Your task to perform on an android device: search for starred emails in the gmail app Image 0: 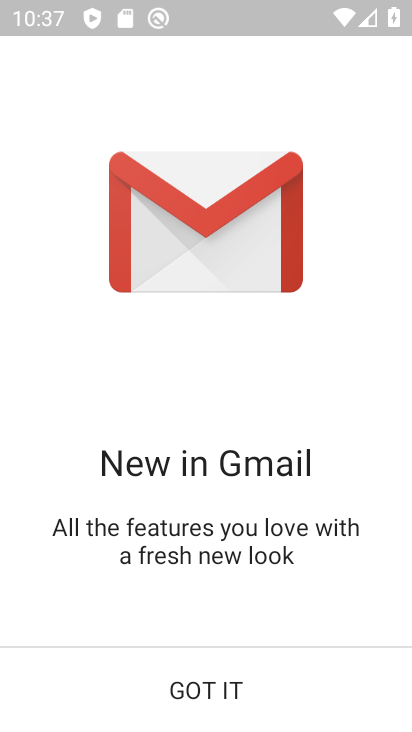
Step 0: click (212, 709)
Your task to perform on an android device: search for starred emails in the gmail app Image 1: 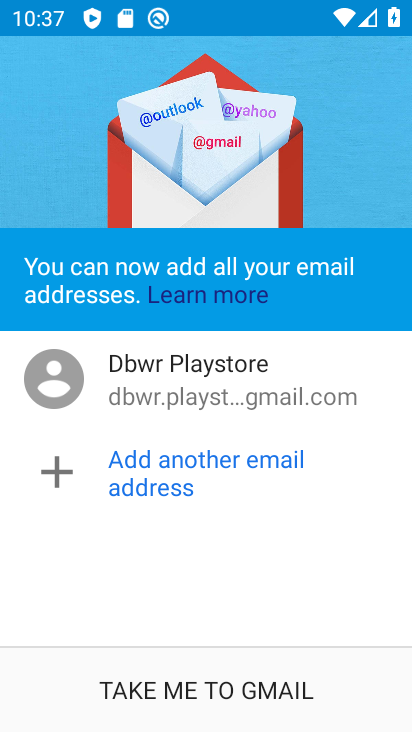
Step 1: click (228, 677)
Your task to perform on an android device: search for starred emails in the gmail app Image 2: 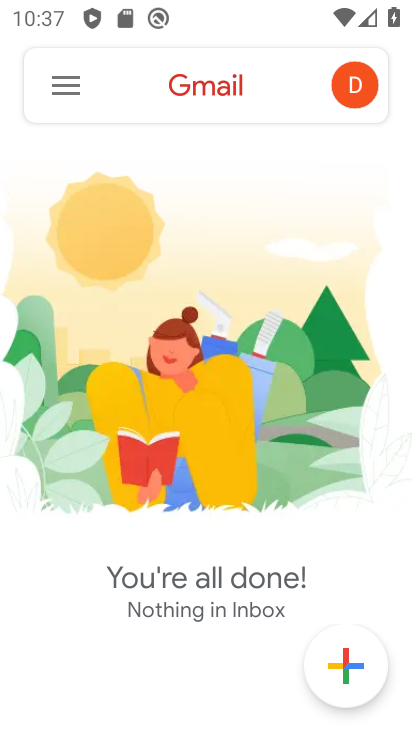
Step 2: click (61, 90)
Your task to perform on an android device: search for starred emails in the gmail app Image 3: 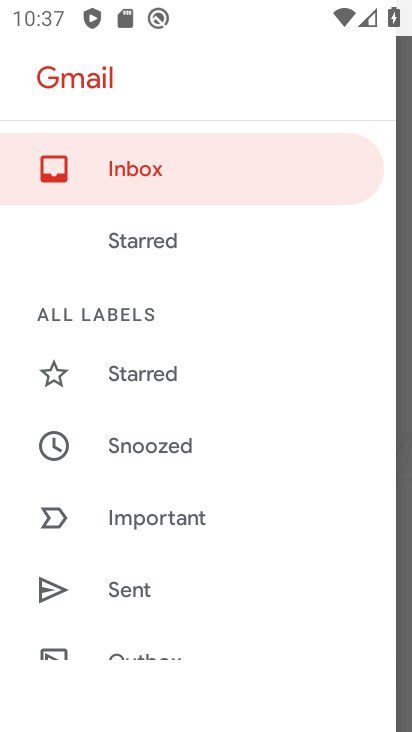
Step 3: click (140, 249)
Your task to perform on an android device: search for starred emails in the gmail app Image 4: 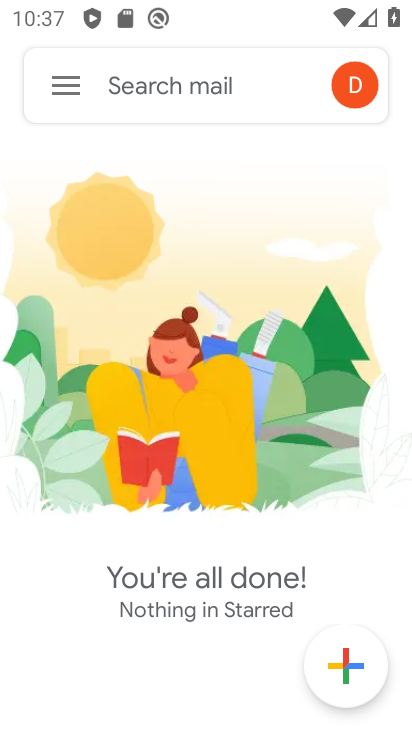
Step 4: task complete